Your task to perform on an android device: turn off improve location accuracy Image 0: 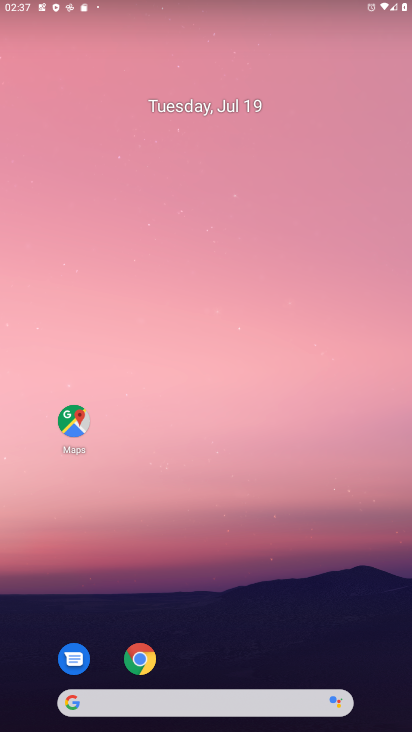
Step 0: press home button
Your task to perform on an android device: turn off improve location accuracy Image 1: 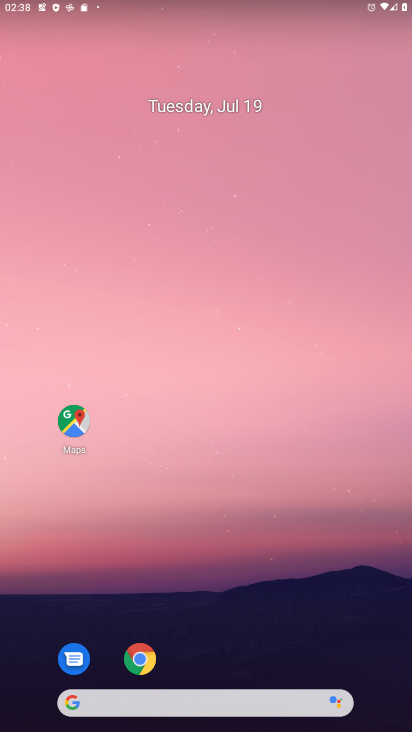
Step 1: drag from (225, 679) to (226, 253)
Your task to perform on an android device: turn off improve location accuracy Image 2: 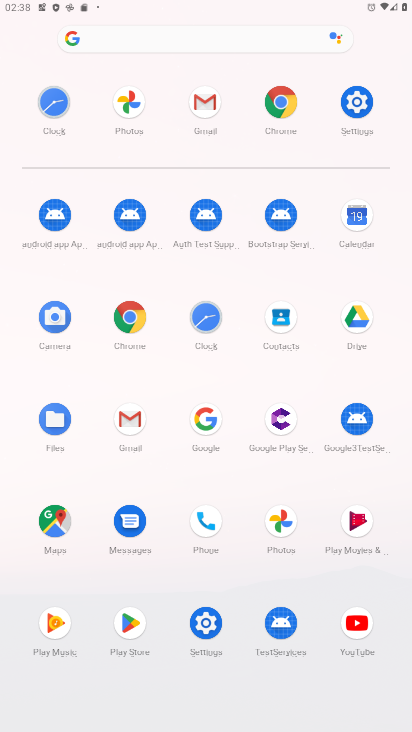
Step 2: click (351, 86)
Your task to perform on an android device: turn off improve location accuracy Image 3: 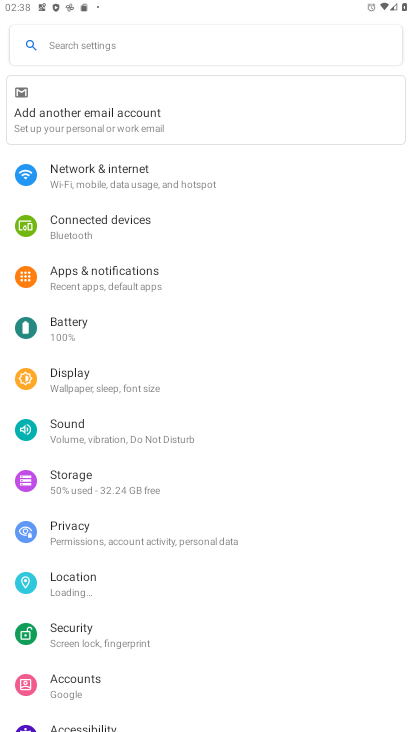
Step 3: click (67, 570)
Your task to perform on an android device: turn off improve location accuracy Image 4: 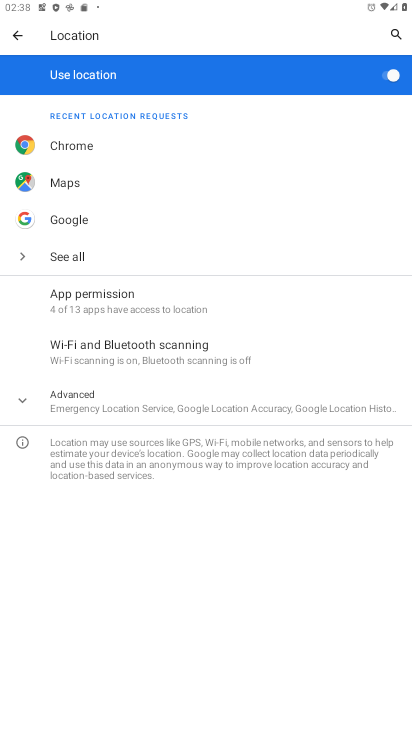
Step 4: click (111, 414)
Your task to perform on an android device: turn off improve location accuracy Image 5: 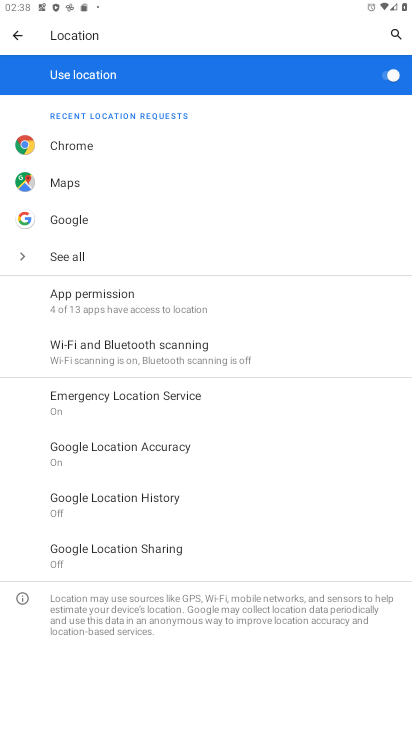
Step 5: click (111, 441)
Your task to perform on an android device: turn off improve location accuracy Image 6: 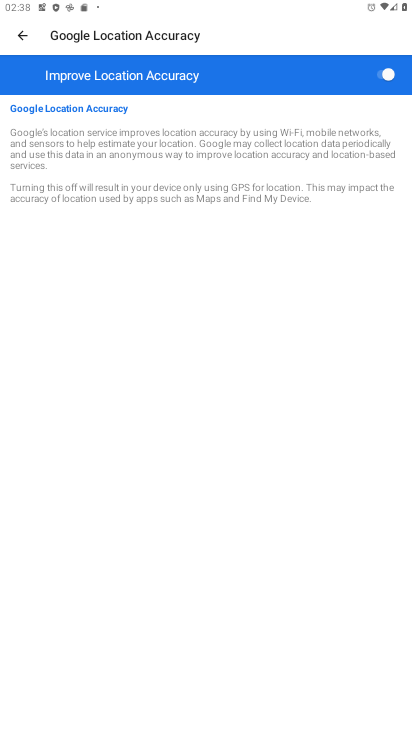
Step 6: click (273, 71)
Your task to perform on an android device: turn off improve location accuracy Image 7: 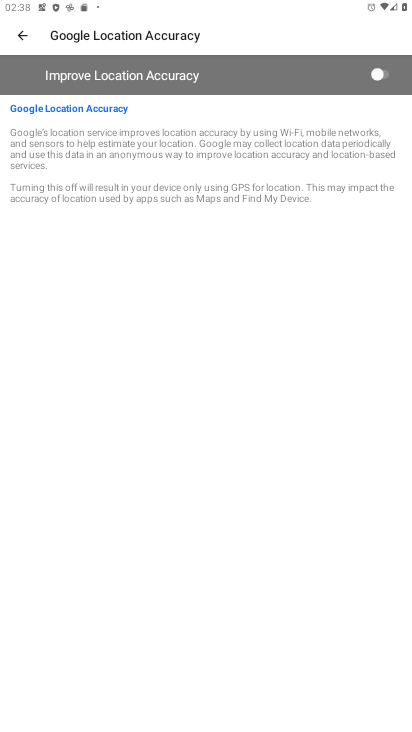
Step 7: task complete